Your task to perform on an android device: turn on notifications settings in the gmail app Image 0: 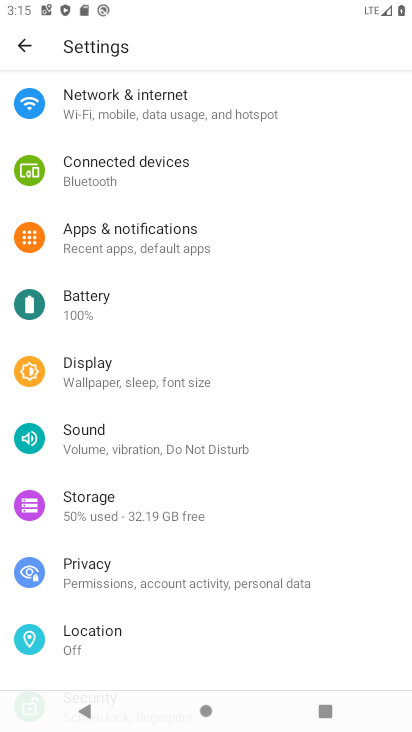
Step 0: press home button
Your task to perform on an android device: turn on notifications settings in the gmail app Image 1: 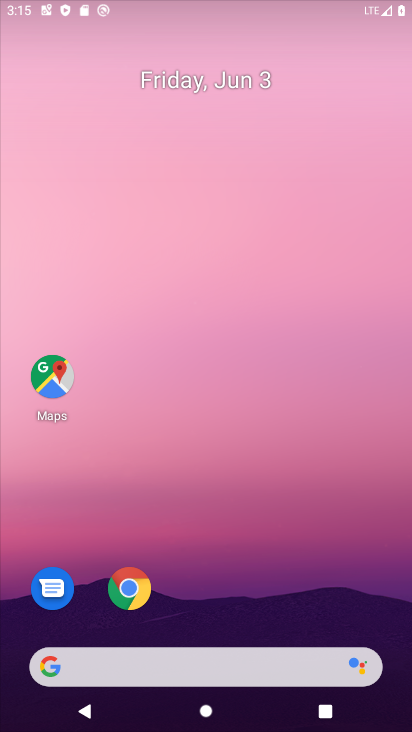
Step 1: drag from (44, 594) to (316, 130)
Your task to perform on an android device: turn on notifications settings in the gmail app Image 2: 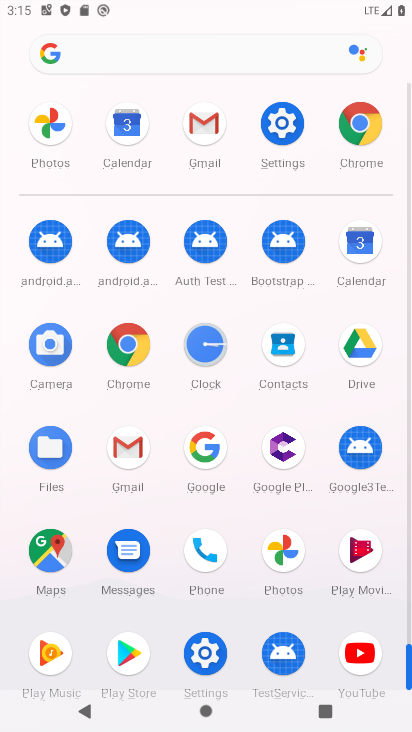
Step 2: click (134, 447)
Your task to perform on an android device: turn on notifications settings in the gmail app Image 3: 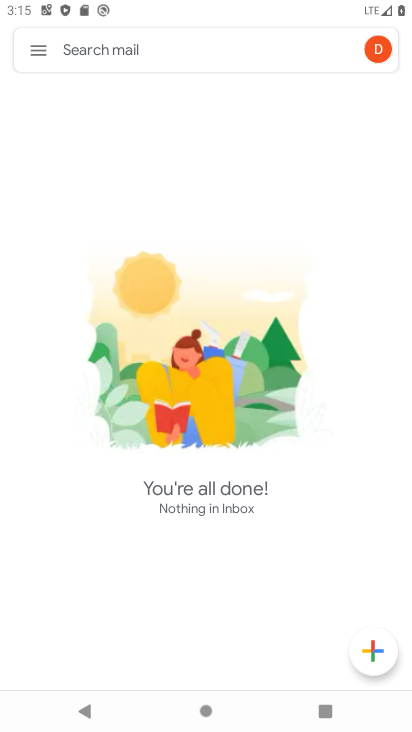
Step 3: click (28, 54)
Your task to perform on an android device: turn on notifications settings in the gmail app Image 4: 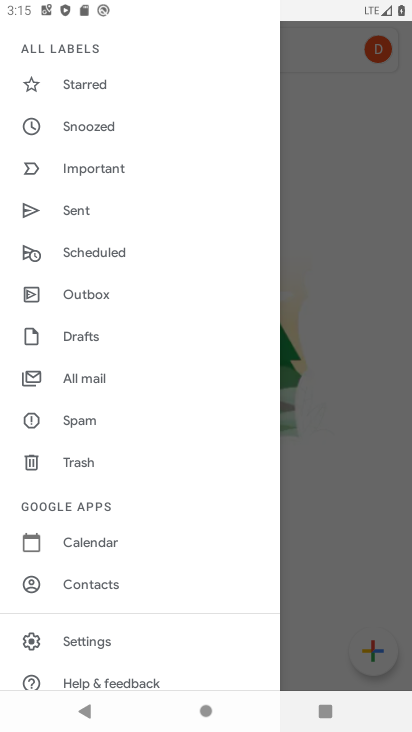
Step 4: click (64, 624)
Your task to perform on an android device: turn on notifications settings in the gmail app Image 5: 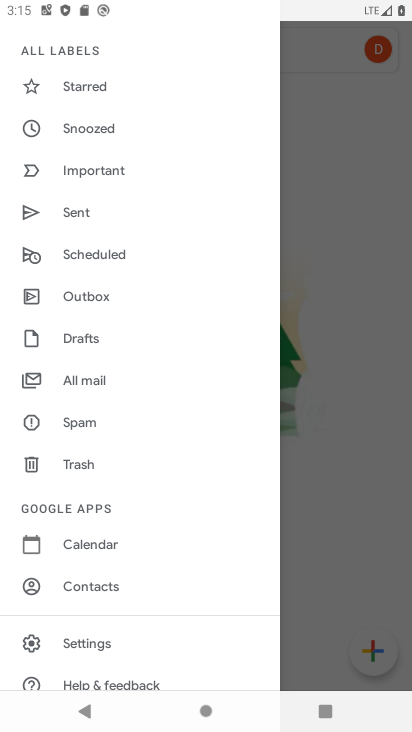
Step 5: click (54, 640)
Your task to perform on an android device: turn on notifications settings in the gmail app Image 6: 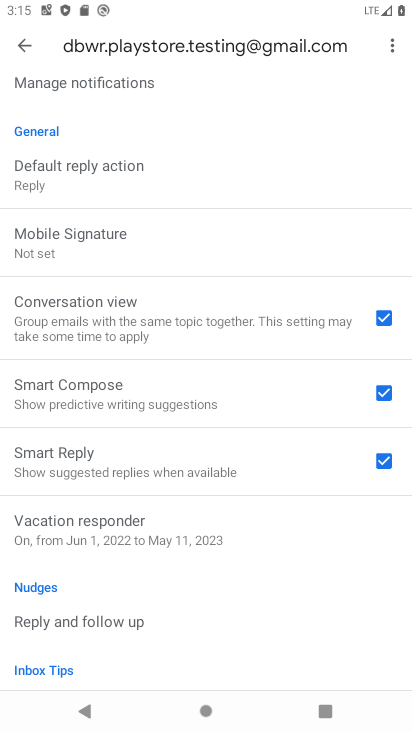
Step 6: drag from (147, 621) to (280, 198)
Your task to perform on an android device: turn on notifications settings in the gmail app Image 7: 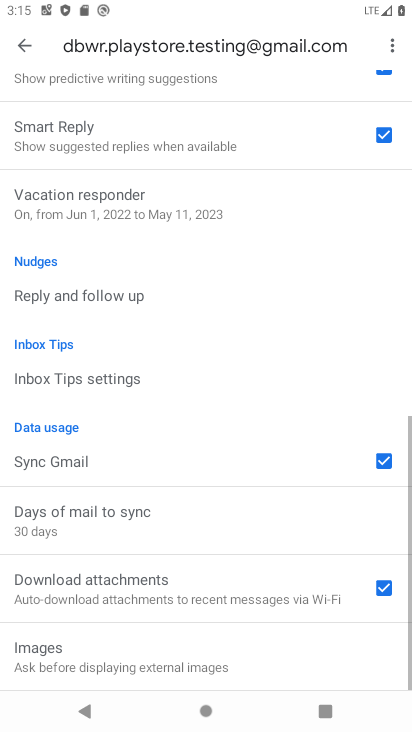
Step 7: drag from (215, 139) to (111, 632)
Your task to perform on an android device: turn on notifications settings in the gmail app Image 8: 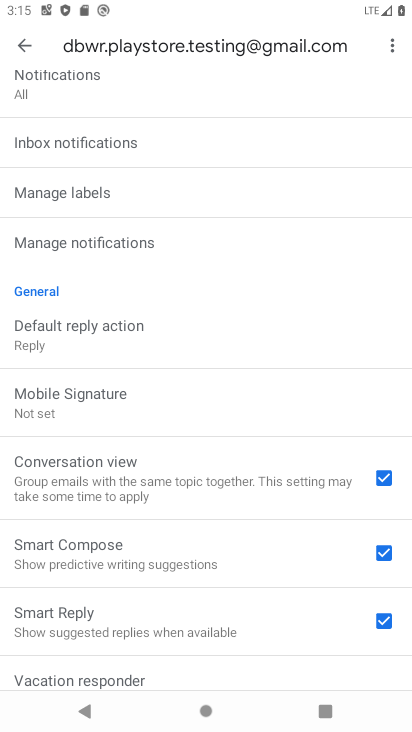
Step 8: click (86, 240)
Your task to perform on an android device: turn on notifications settings in the gmail app Image 9: 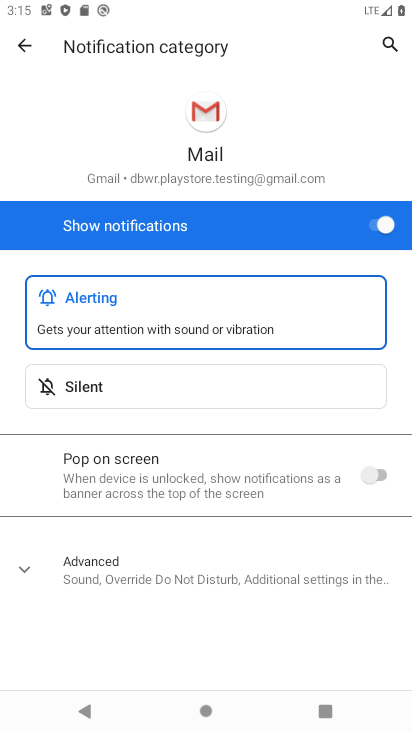
Step 9: task complete